Your task to perform on an android device: Open network settings Image 0: 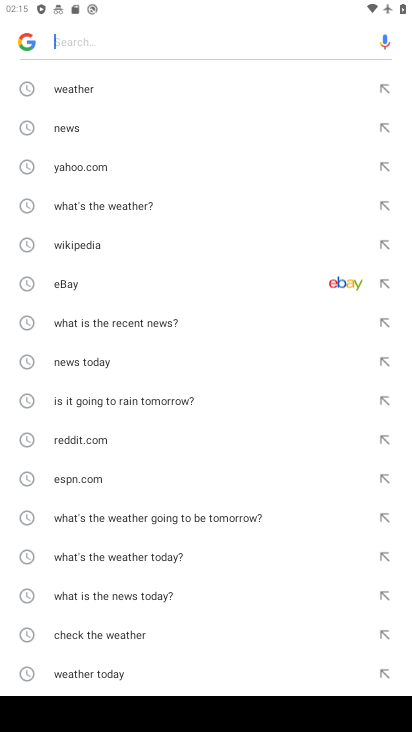
Step 0: press home button
Your task to perform on an android device: Open network settings Image 1: 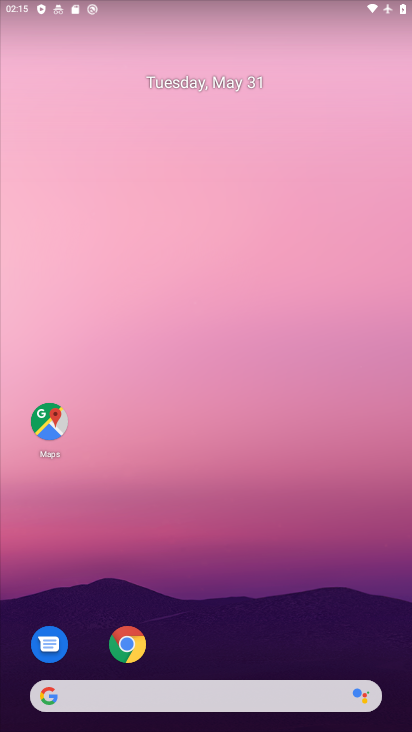
Step 1: drag from (301, 607) to (169, 135)
Your task to perform on an android device: Open network settings Image 2: 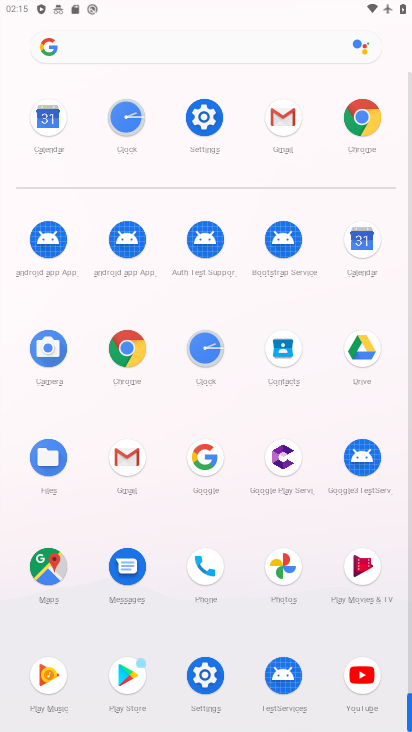
Step 2: click (210, 120)
Your task to perform on an android device: Open network settings Image 3: 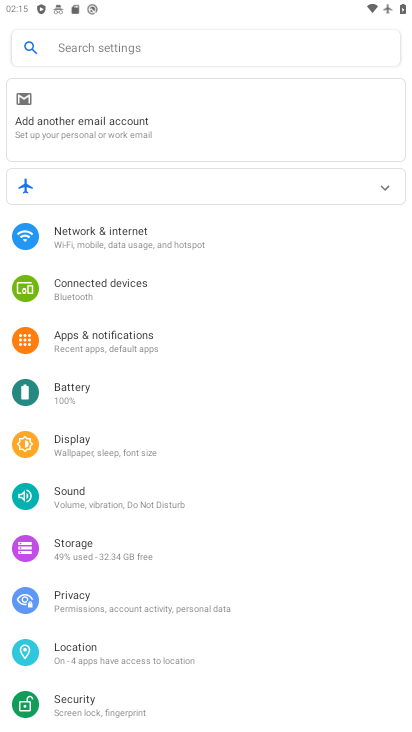
Step 3: click (111, 237)
Your task to perform on an android device: Open network settings Image 4: 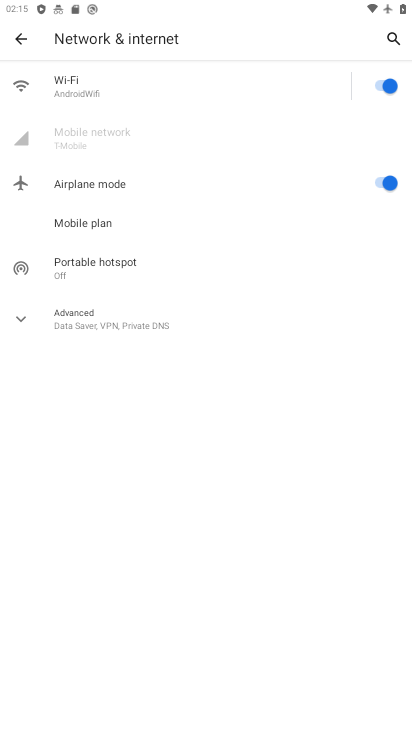
Step 4: task complete